Your task to perform on an android device: turn on bluetooth scan Image 0: 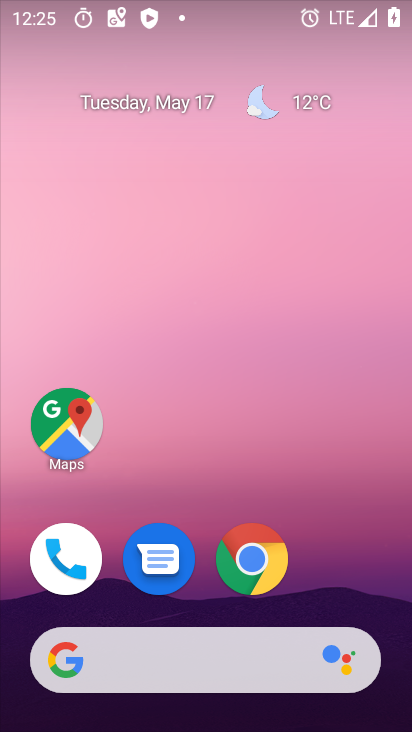
Step 0: drag from (338, 555) to (362, 80)
Your task to perform on an android device: turn on bluetooth scan Image 1: 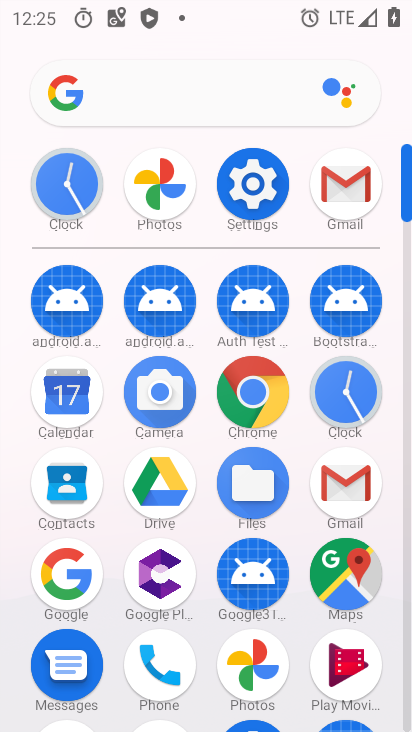
Step 1: click (260, 195)
Your task to perform on an android device: turn on bluetooth scan Image 2: 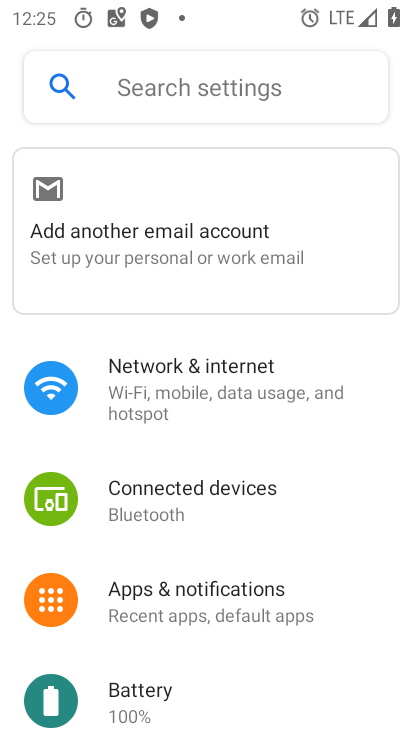
Step 2: drag from (282, 688) to (264, 147)
Your task to perform on an android device: turn on bluetooth scan Image 3: 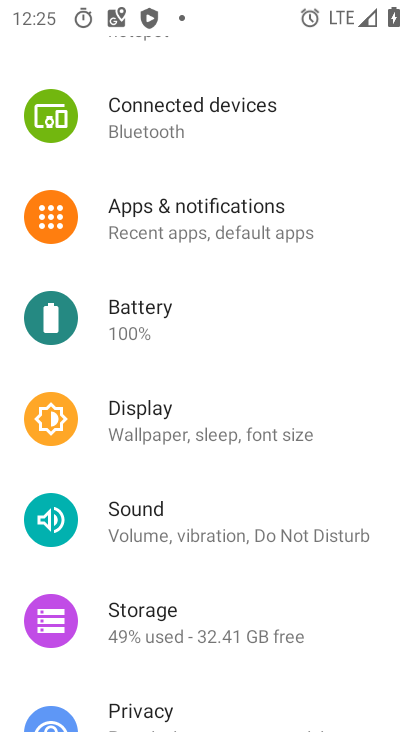
Step 3: drag from (134, 655) to (209, 218)
Your task to perform on an android device: turn on bluetooth scan Image 4: 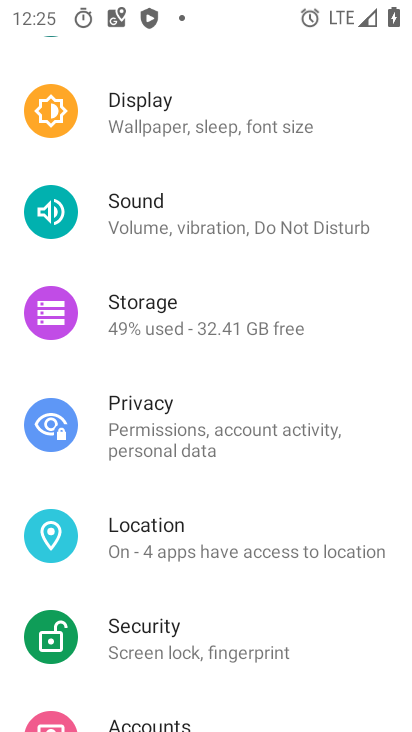
Step 4: click (183, 519)
Your task to perform on an android device: turn on bluetooth scan Image 5: 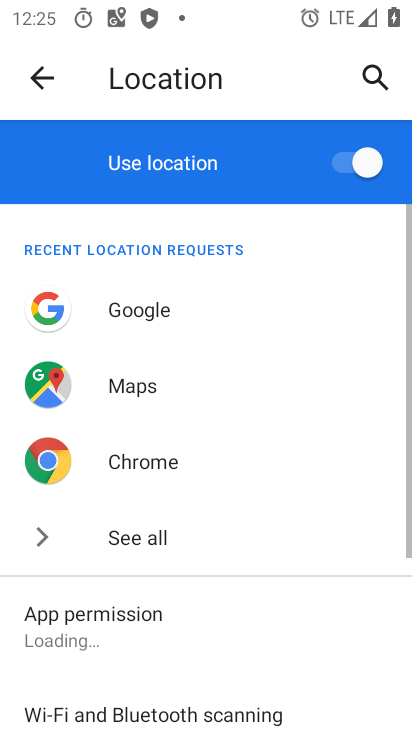
Step 5: drag from (199, 675) to (245, 145)
Your task to perform on an android device: turn on bluetooth scan Image 6: 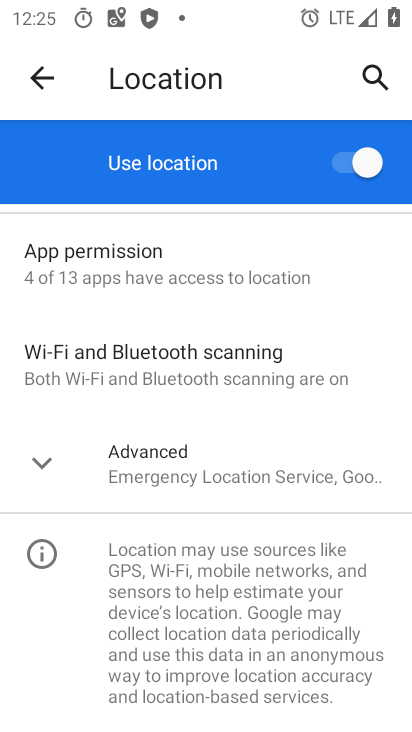
Step 6: click (148, 354)
Your task to perform on an android device: turn on bluetooth scan Image 7: 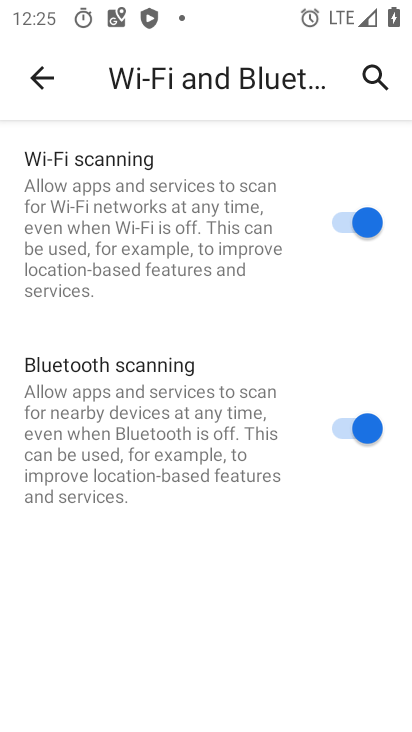
Step 7: task complete